Your task to perform on an android device: Open the stopwatch Image 0: 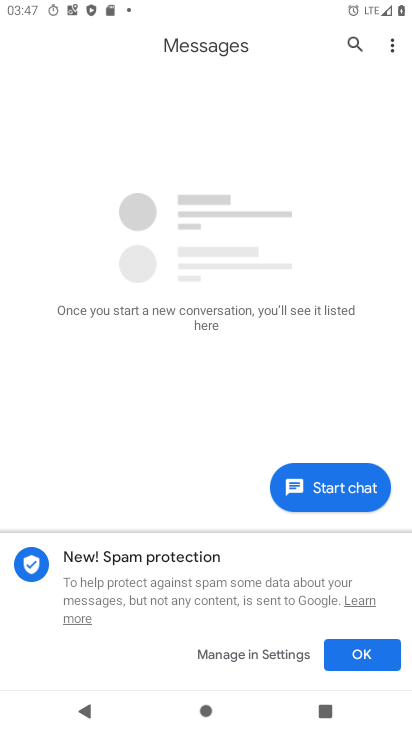
Step 0: press home button
Your task to perform on an android device: Open the stopwatch Image 1: 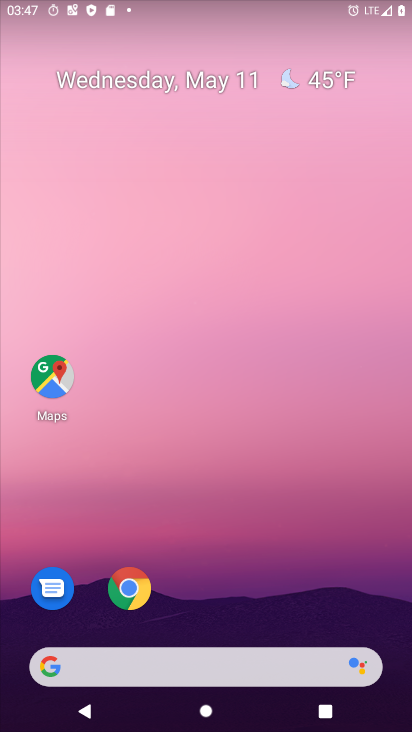
Step 1: drag from (215, 612) to (217, 146)
Your task to perform on an android device: Open the stopwatch Image 2: 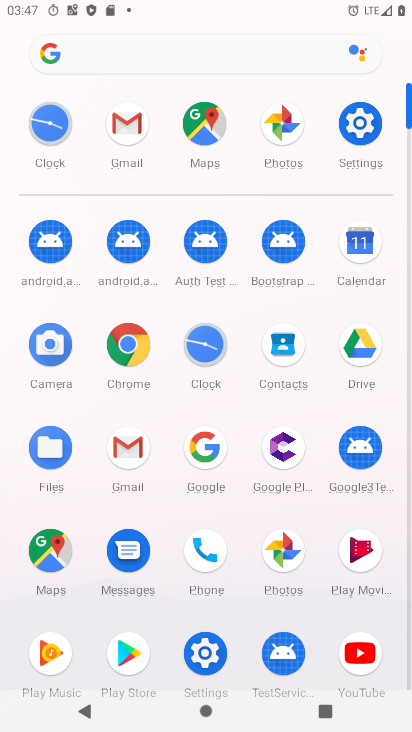
Step 2: click (51, 134)
Your task to perform on an android device: Open the stopwatch Image 3: 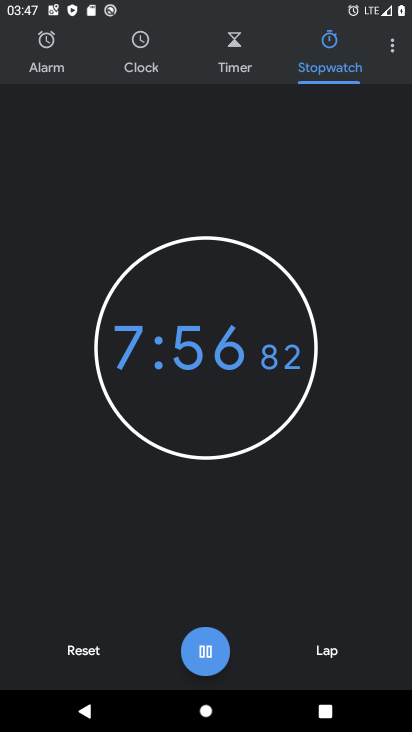
Step 3: task complete